Your task to perform on an android device: turn off notifications settings in the gmail app Image 0: 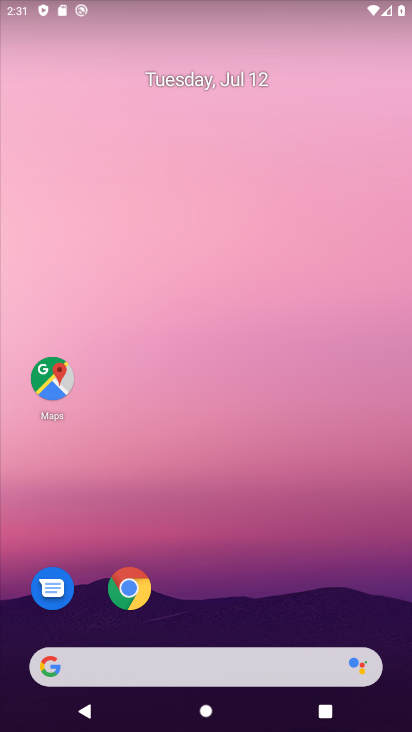
Step 0: drag from (242, 643) to (220, 130)
Your task to perform on an android device: turn off notifications settings in the gmail app Image 1: 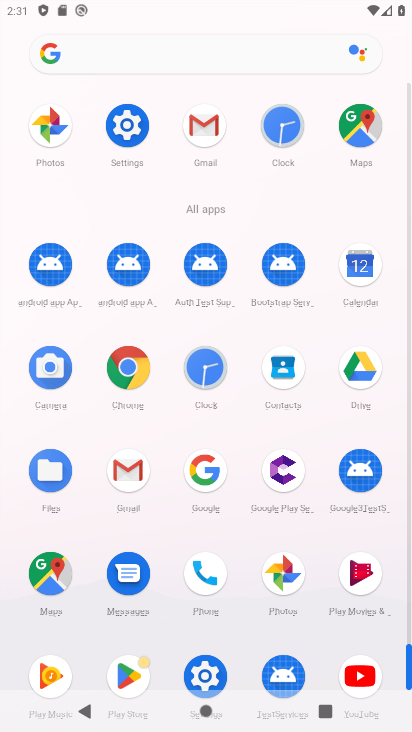
Step 1: click (128, 472)
Your task to perform on an android device: turn off notifications settings in the gmail app Image 2: 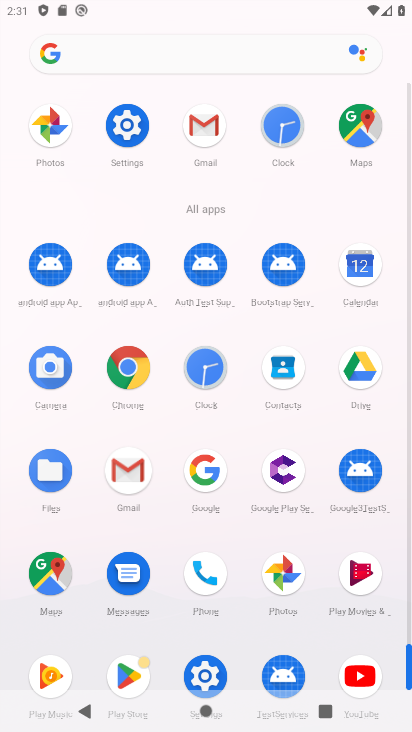
Step 2: click (128, 472)
Your task to perform on an android device: turn off notifications settings in the gmail app Image 3: 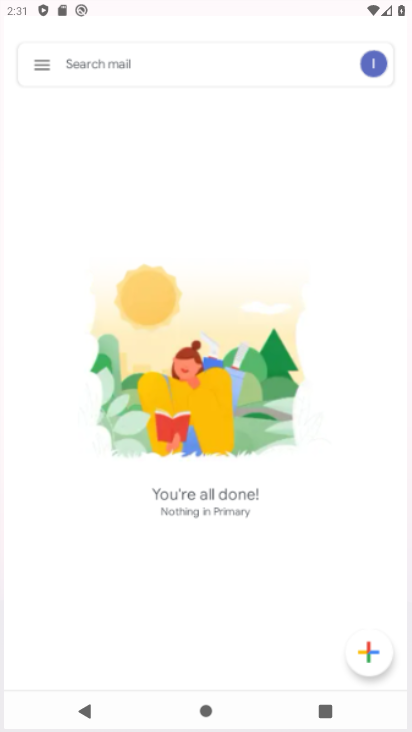
Step 3: click (128, 471)
Your task to perform on an android device: turn off notifications settings in the gmail app Image 4: 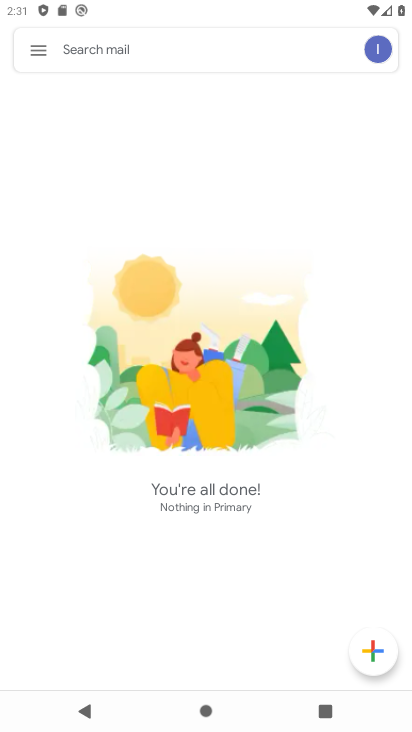
Step 4: click (34, 53)
Your task to perform on an android device: turn off notifications settings in the gmail app Image 5: 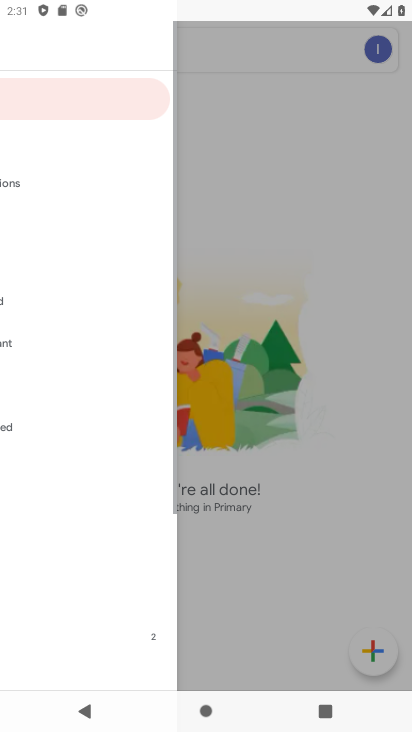
Step 5: click (34, 53)
Your task to perform on an android device: turn off notifications settings in the gmail app Image 6: 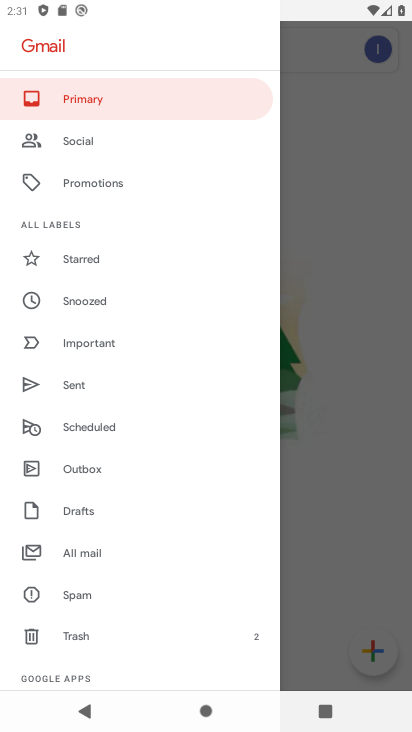
Step 6: drag from (90, 503) to (88, 157)
Your task to perform on an android device: turn off notifications settings in the gmail app Image 7: 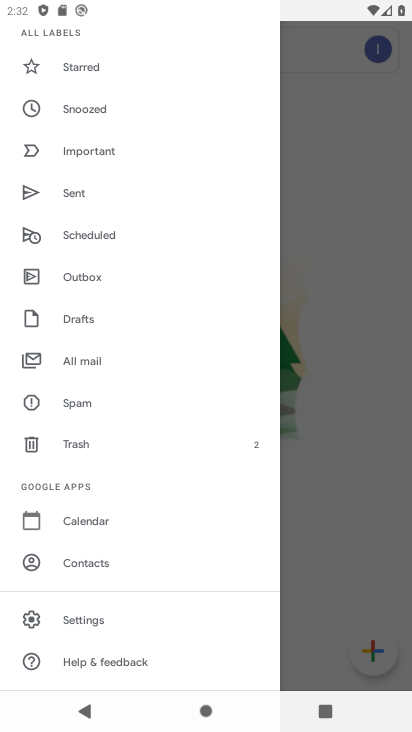
Step 7: click (85, 621)
Your task to perform on an android device: turn off notifications settings in the gmail app Image 8: 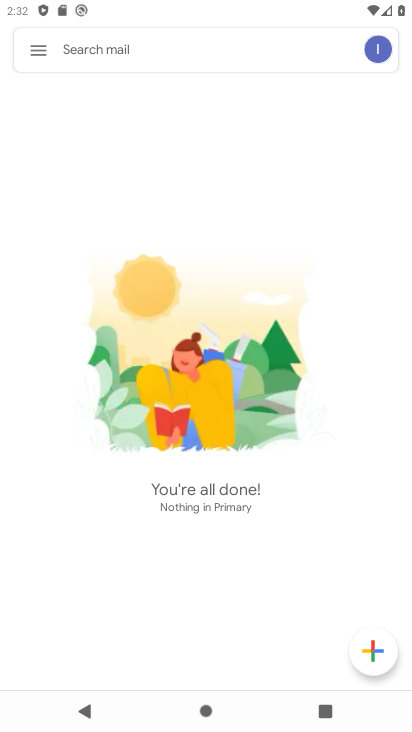
Step 8: click (80, 613)
Your task to perform on an android device: turn off notifications settings in the gmail app Image 9: 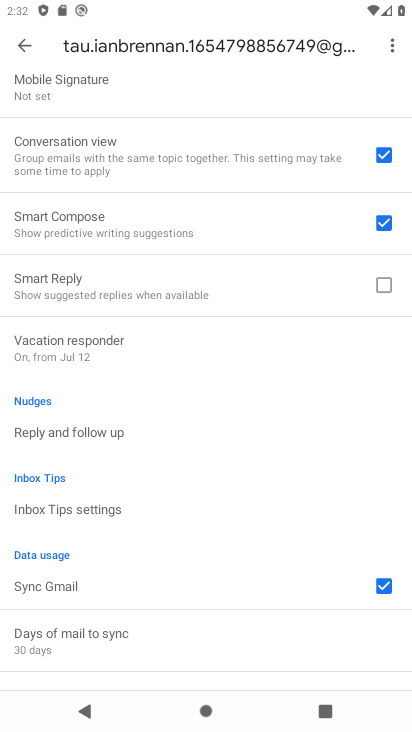
Step 9: drag from (82, 606) to (120, 243)
Your task to perform on an android device: turn off notifications settings in the gmail app Image 10: 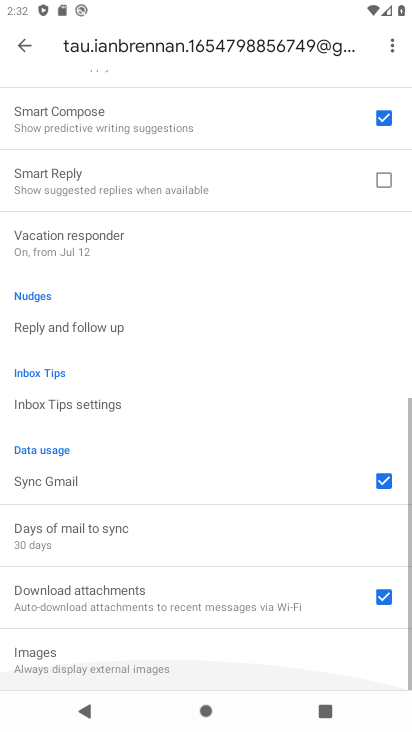
Step 10: drag from (160, 486) to (126, 131)
Your task to perform on an android device: turn off notifications settings in the gmail app Image 11: 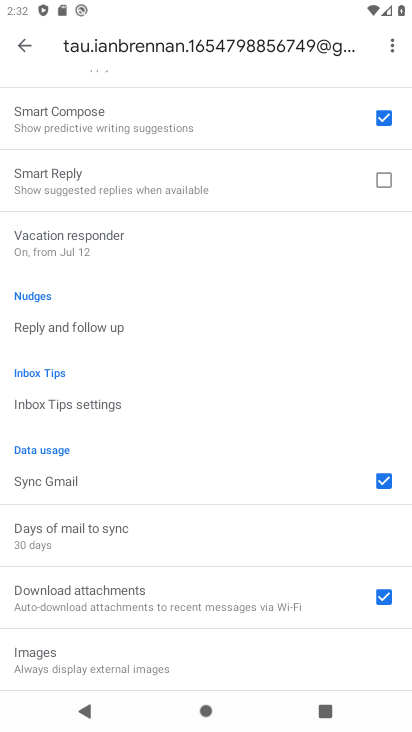
Step 11: drag from (96, 542) to (84, 107)
Your task to perform on an android device: turn off notifications settings in the gmail app Image 12: 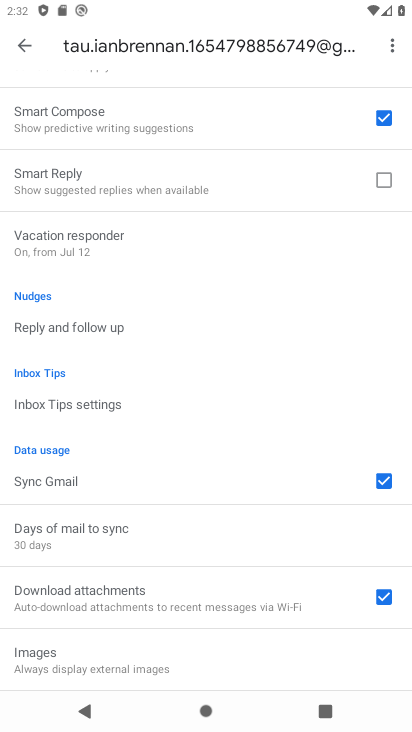
Step 12: click (43, 498)
Your task to perform on an android device: turn off notifications settings in the gmail app Image 13: 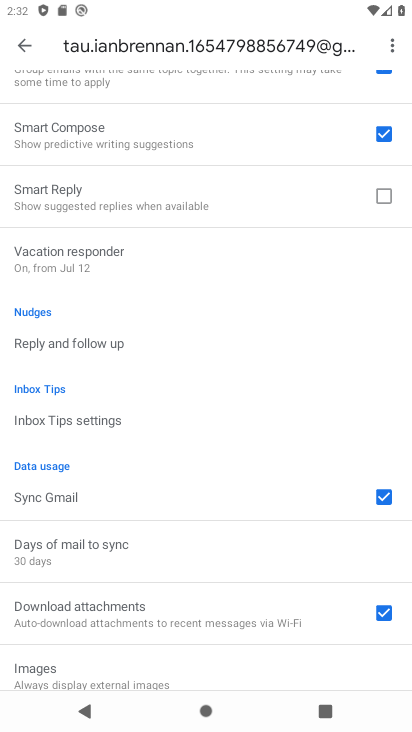
Step 13: drag from (104, 467) to (217, 132)
Your task to perform on an android device: turn off notifications settings in the gmail app Image 14: 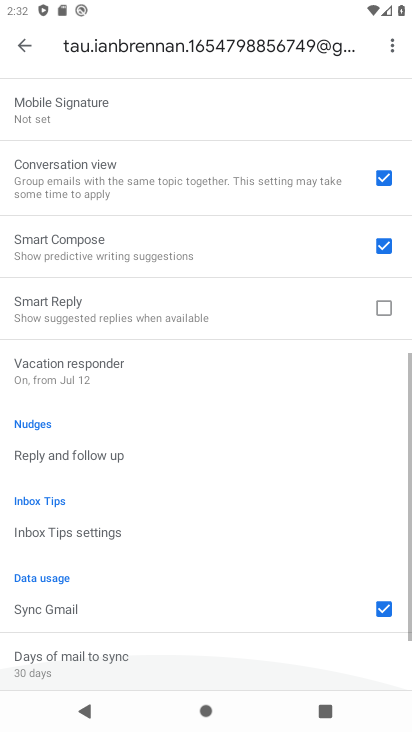
Step 14: drag from (191, 465) to (224, 139)
Your task to perform on an android device: turn off notifications settings in the gmail app Image 15: 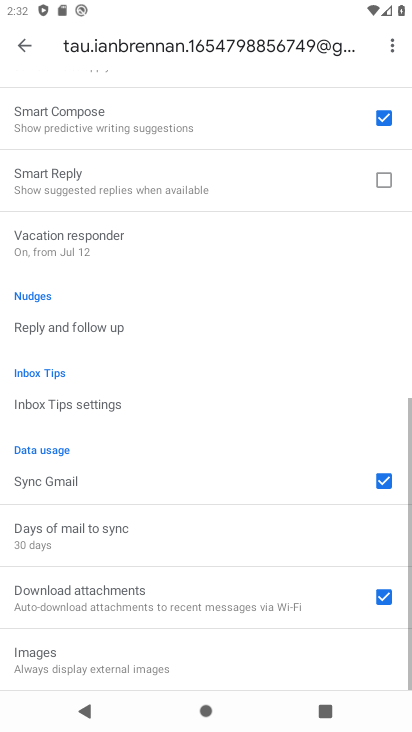
Step 15: drag from (162, 454) to (139, 65)
Your task to perform on an android device: turn off notifications settings in the gmail app Image 16: 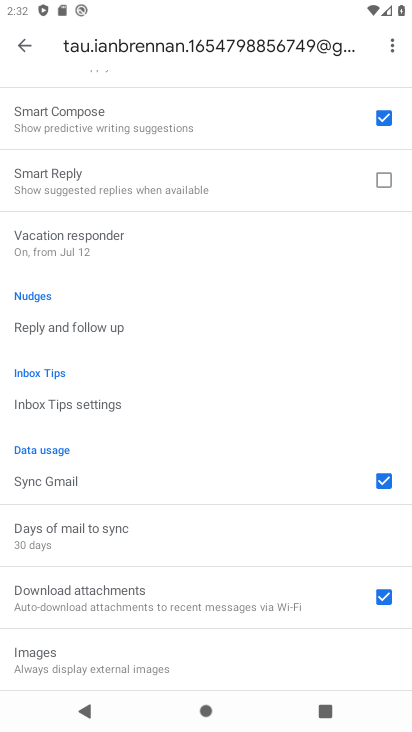
Step 16: drag from (94, 576) to (72, 249)
Your task to perform on an android device: turn off notifications settings in the gmail app Image 17: 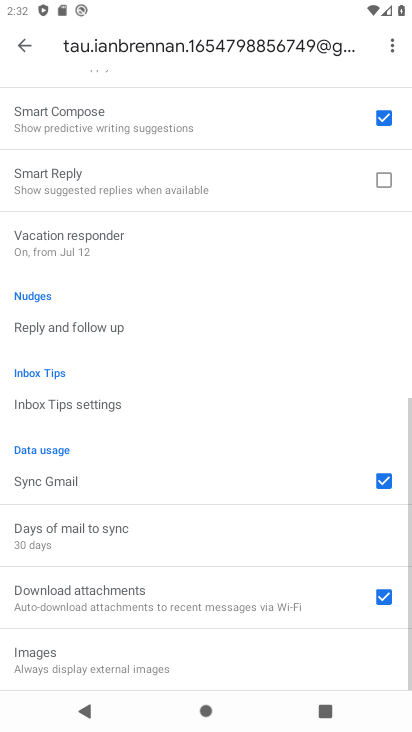
Step 17: drag from (140, 277) to (136, 479)
Your task to perform on an android device: turn off notifications settings in the gmail app Image 18: 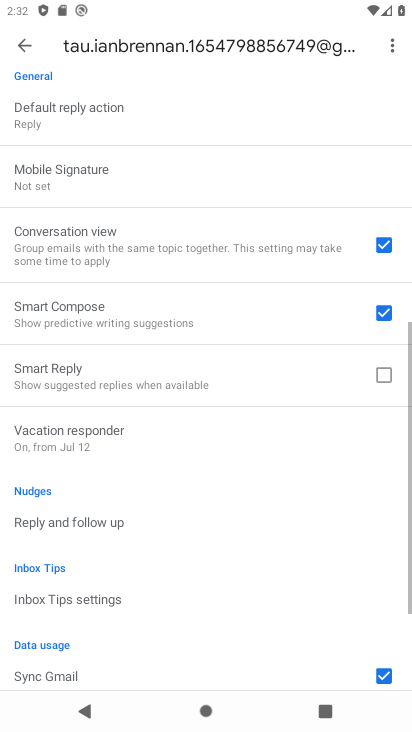
Step 18: drag from (71, 277) to (108, 540)
Your task to perform on an android device: turn off notifications settings in the gmail app Image 19: 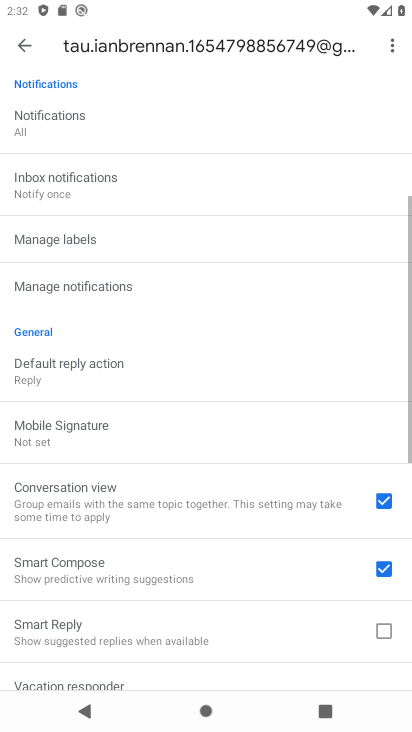
Step 19: drag from (100, 349) to (104, 589)
Your task to perform on an android device: turn off notifications settings in the gmail app Image 20: 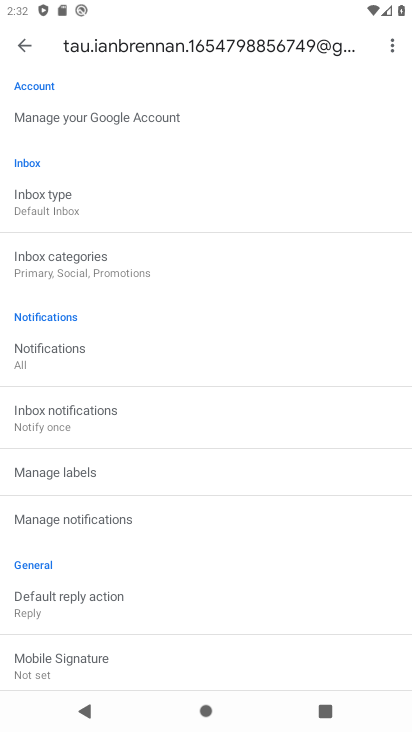
Step 20: click (34, 344)
Your task to perform on an android device: turn off notifications settings in the gmail app Image 21: 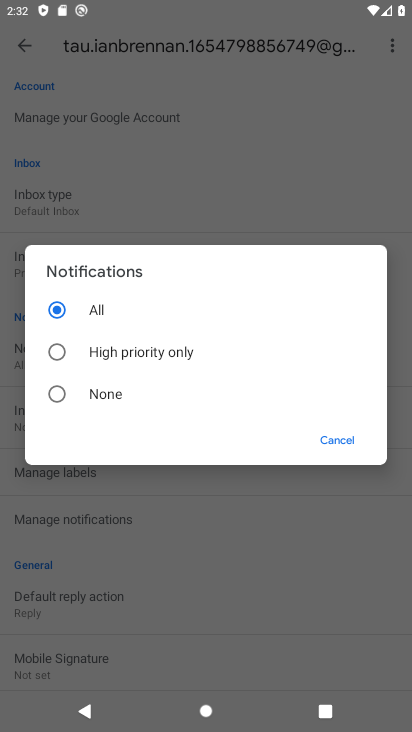
Step 21: click (56, 349)
Your task to perform on an android device: turn off notifications settings in the gmail app Image 22: 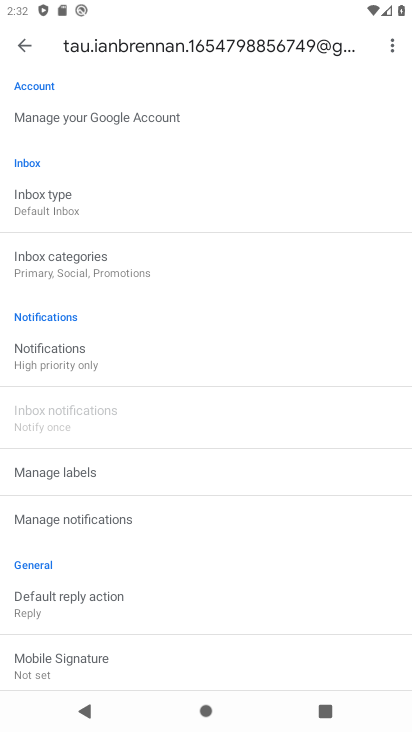
Step 22: task complete